Your task to perform on an android device: Go to Wikipedia Image 0: 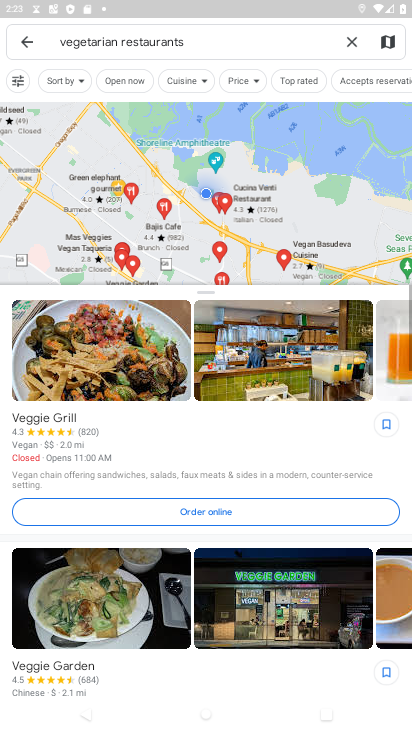
Step 0: task complete